Your task to perform on an android device: Open battery settings Image 0: 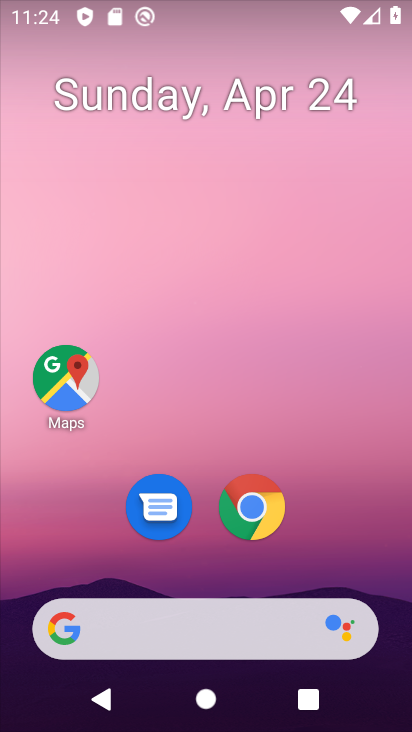
Step 0: drag from (320, 549) to (318, 56)
Your task to perform on an android device: Open battery settings Image 1: 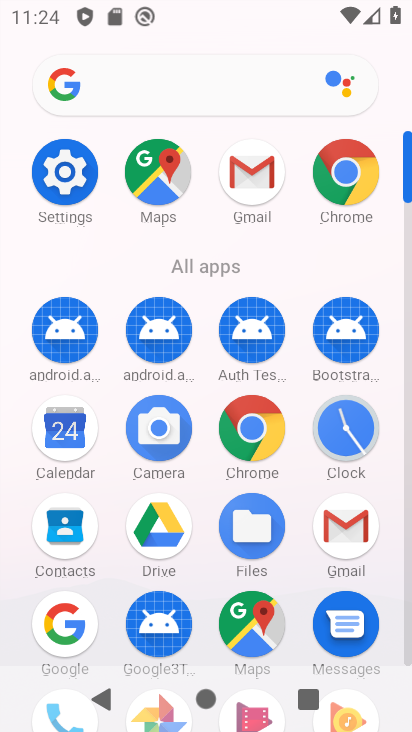
Step 1: click (69, 180)
Your task to perform on an android device: Open battery settings Image 2: 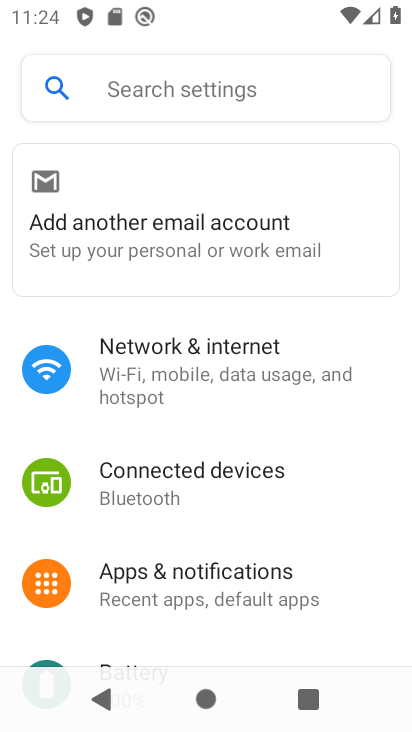
Step 2: drag from (365, 606) to (383, 265)
Your task to perform on an android device: Open battery settings Image 3: 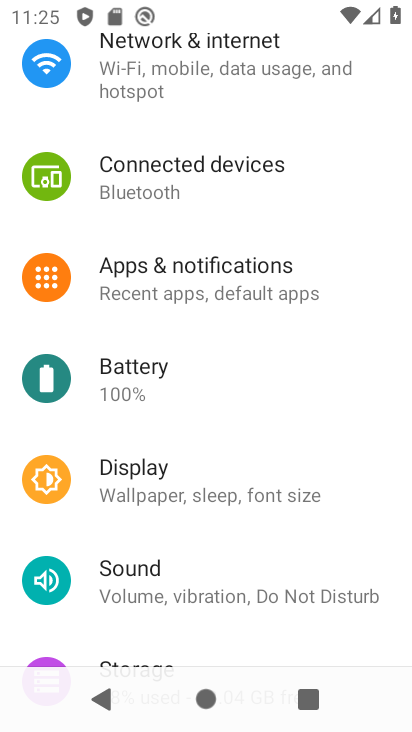
Step 3: click (117, 374)
Your task to perform on an android device: Open battery settings Image 4: 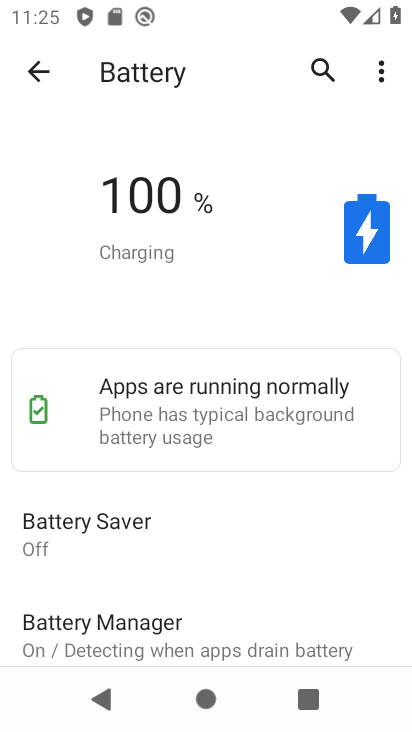
Step 4: task complete